Your task to perform on an android device: open chrome and create a bookmark for the current page Image 0: 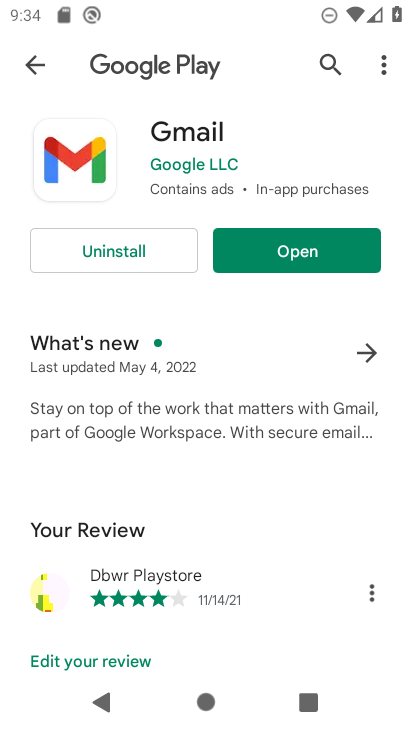
Step 0: press home button
Your task to perform on an android device: open chrome and create a bookmark for the current page Image 1: 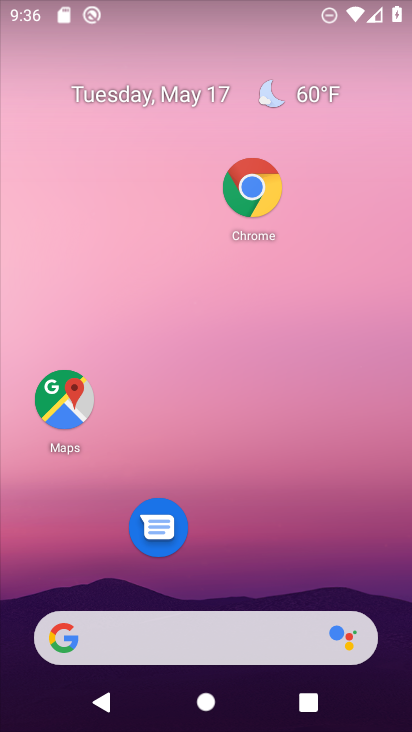
Step 1: click (270, 181)
Your task to perform on an android device: open chrome and create a bookmark for the current page Image 2: 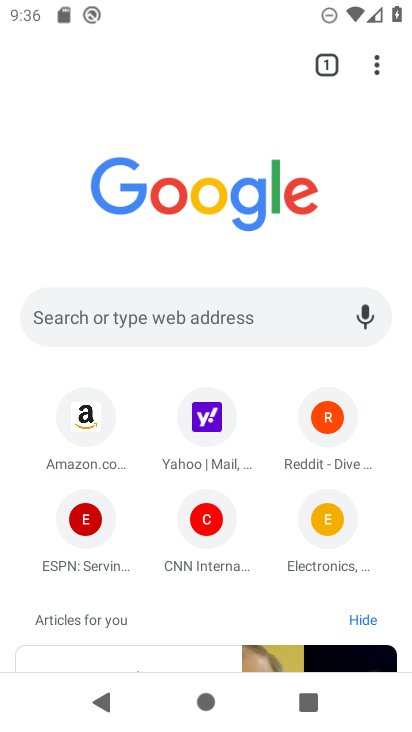
Step 2: click (383, 62)
Your task to perform on an android device: open chrome and create a bookmark for the current page Image 3: 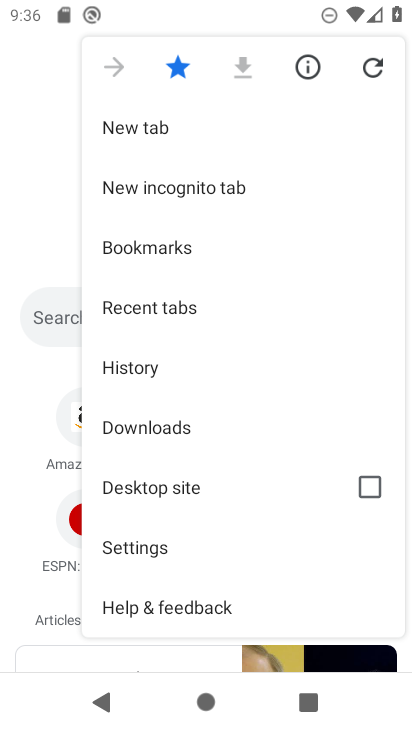
Step 3: click (162, 545)
Your task to perform on an android device: open chrome and create a bookmark for the current page Image 4: 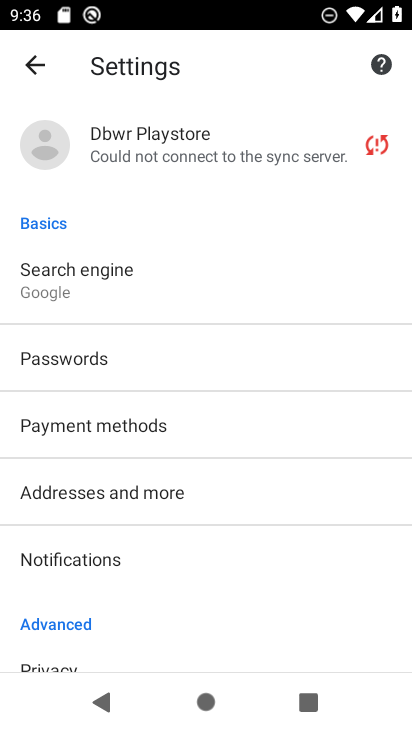
Step 4: click (31, 55)
Your task to perform on an android device: open chrome and create a bookmark for the current page Image 5: 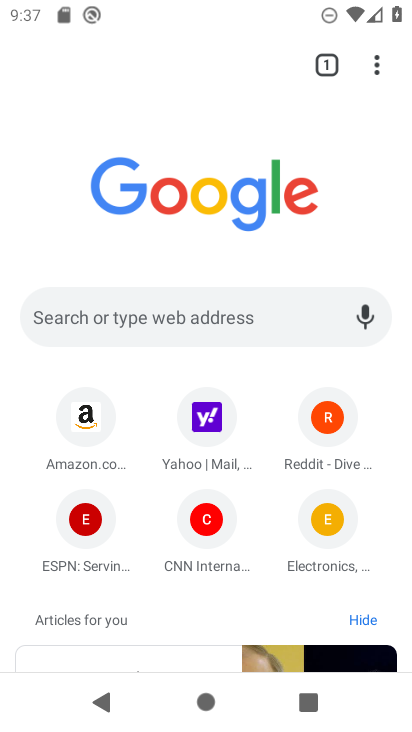
Step 5: click (236, 313)
Your task to perform on an android device: open chrome and create a bookmark for the current page Image 6: 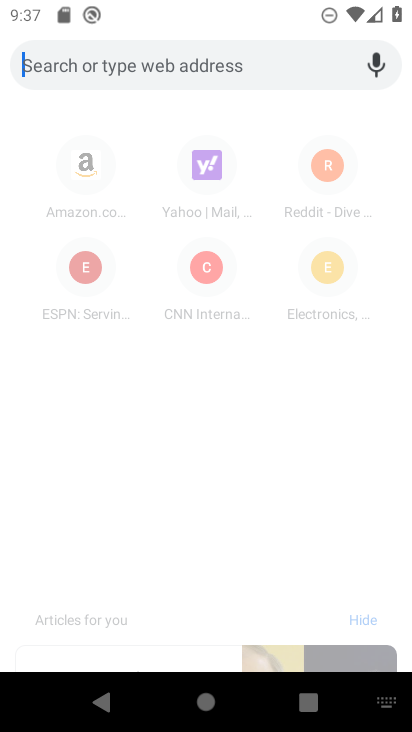
Step 6: type "isi"
Your task to perform on an android device: open chrome and create a bookmark for the current page Image 7: 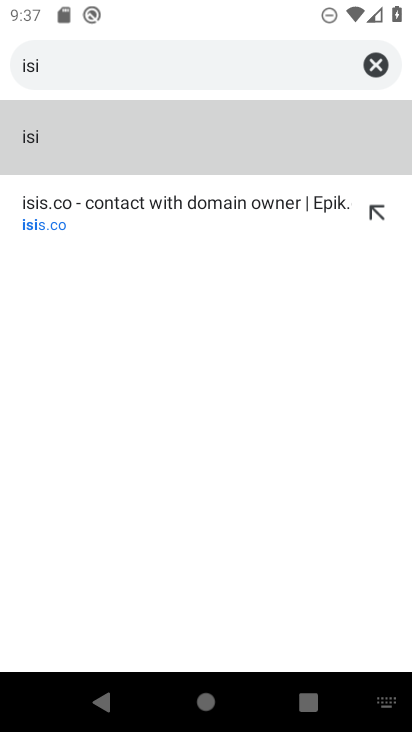
Step 7: click (171, 165)
Your task to perform on an android device: open chrome and create a bookmark for the current page Image 8: 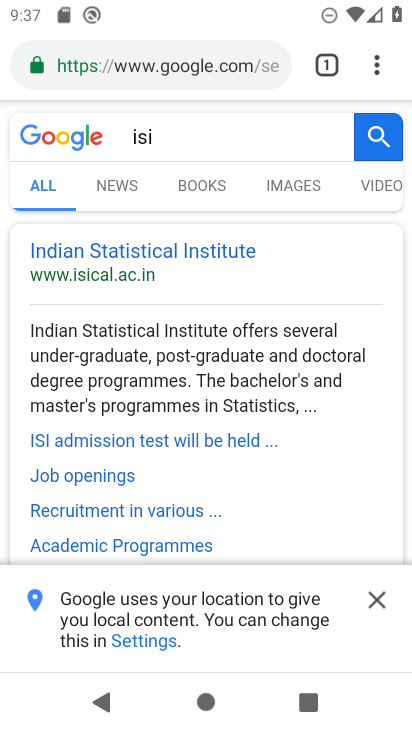
Step 8: click (379, 600)
Your task to perform on an android device: open chrome and create a bookmark for the current page Image 9: 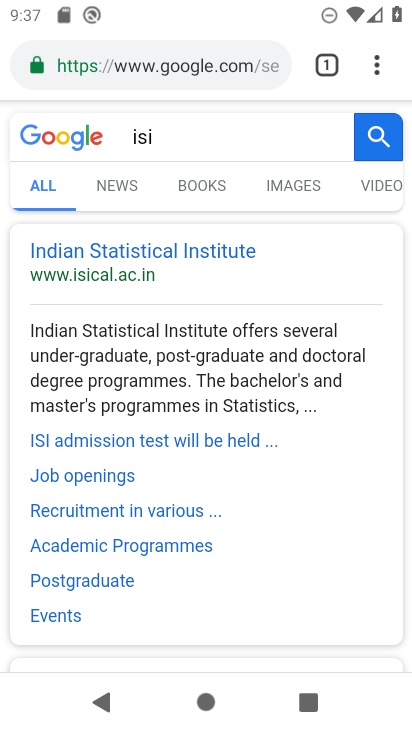
Step 9: drag from (184, 459) to (223, 280)
Your task to perform on an android device: open chrome and create a bookmark for the current page Image 10: 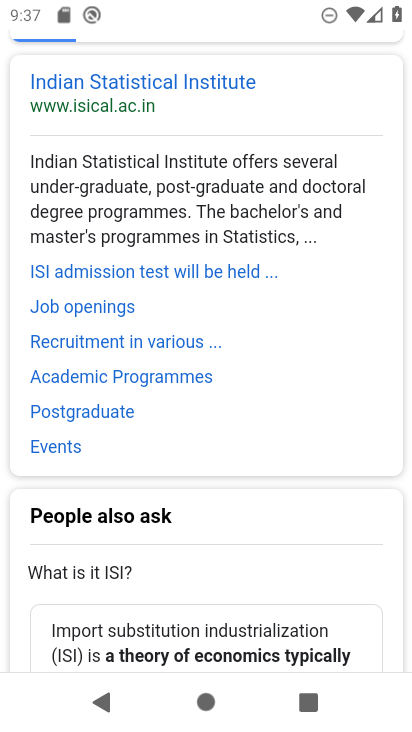
Step 10: drag from (199, 531) to (259, 234)
Your task to perform on an android device: open chrome and create a bookmark for the current page Image 11: 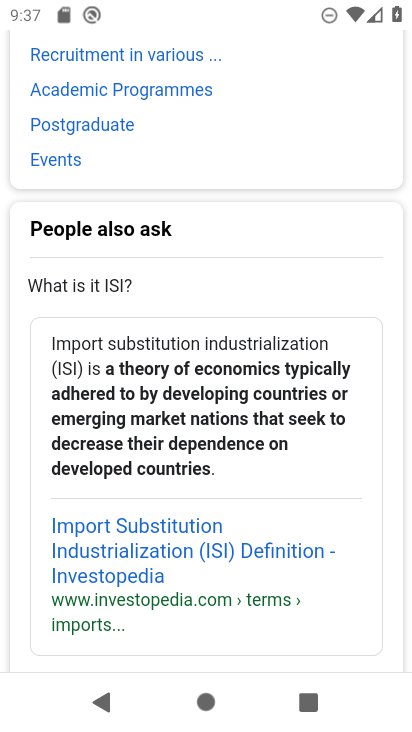
Step 11: drag from (218, 556) to (271, 204)
Your task to perform on an android device: open chrome and create a bookmark for the current page Image 12: 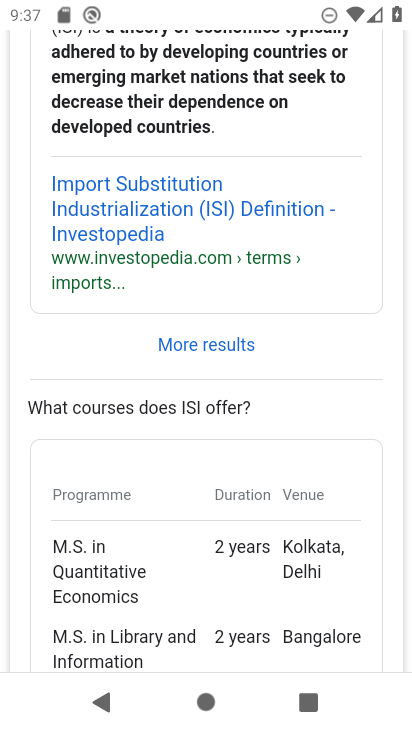
Step 12: drag from (206, 576) to (233, 387)
Your task to perform on an android device: open chrome and create a bookmark for the current page Image 13: 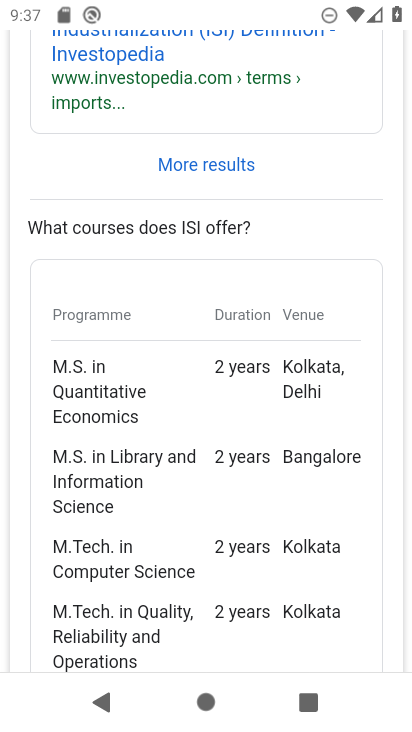
Step 13: drag from (227, 628) to (245, 264)
Your task to perform on an android device: open chrome and create a bookmark for the current page Image 14: 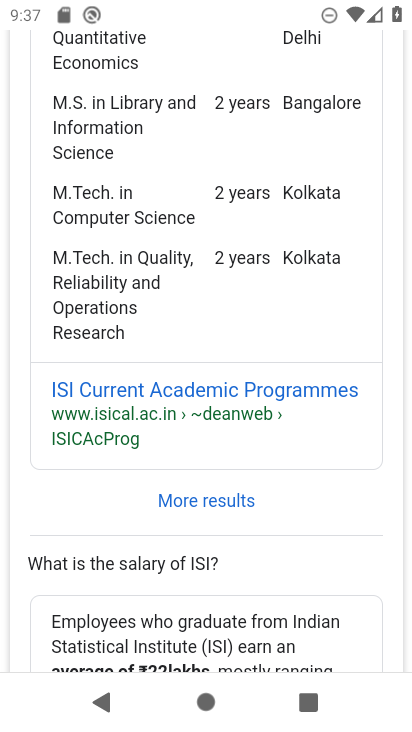
Step 14: drag from (223, 590) to (269, 223)
Your task to perform on an android device: open chrome and create a bookmark for the current page Image 15: 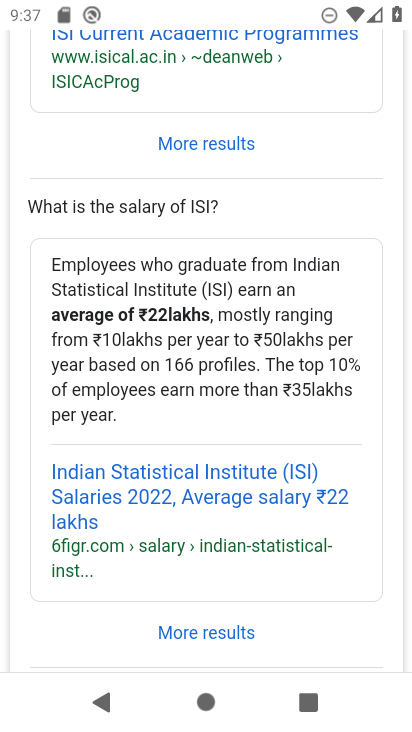
Step 15: drag from (269, 190) to (209, 640)
Your task to perform on an android device: open chrome and create a bookmark for the current page Image 16: 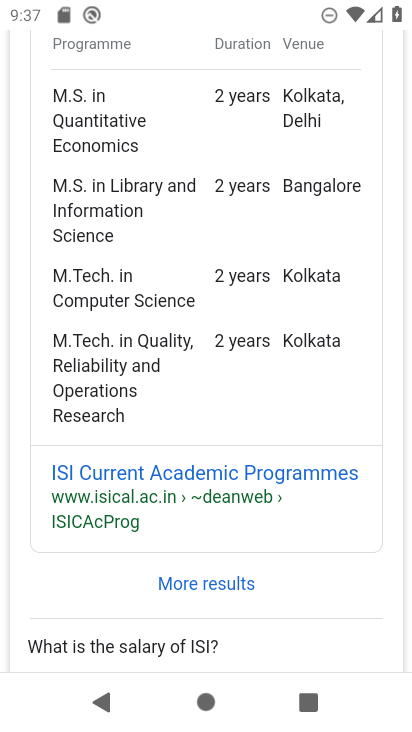
Step 16: drag from (192, 226) to (224, 647)
Your task to perform on an android device: open chrome and create a bookmark for the current page Image 17: 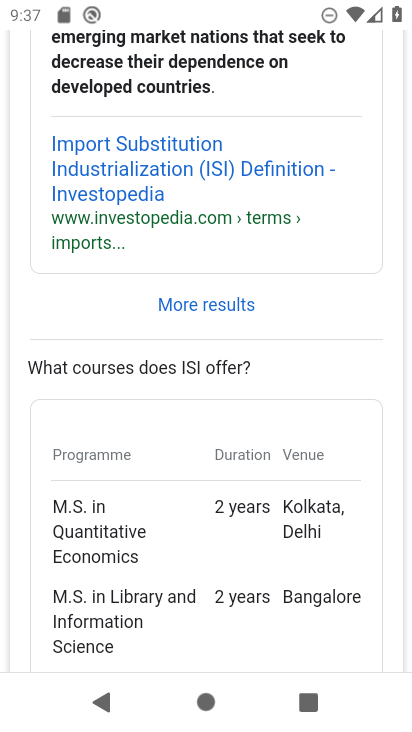
Step 17: drag from (221, 223) to (216, 646)
Your task to perform on an android device: open chrome and create a bookmark for the current page Image 18: 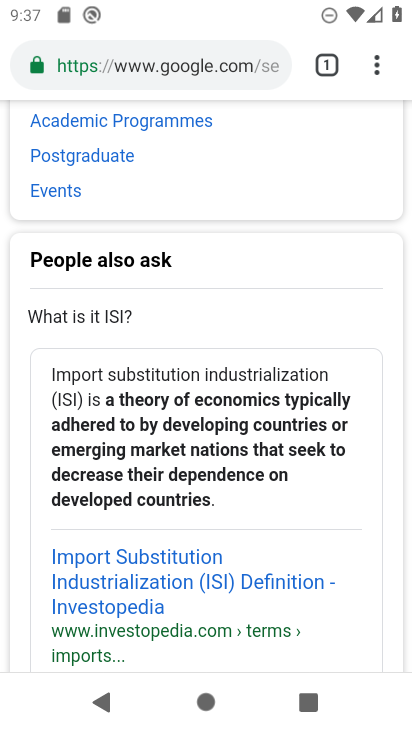
Step 18: drag from (171, 226) to (150, 636)
Your task to perform on an android device: open chrome and create a bookmark for the current page Image 19: 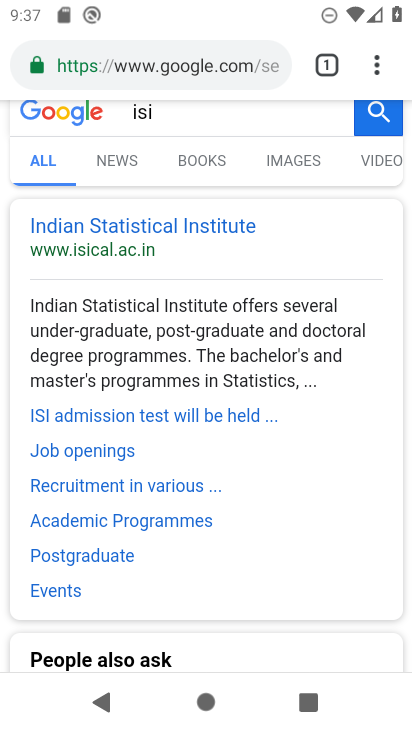
Step 19: drag from (140, 124) to (137, 235)
Your task to perform on an android device: open chrome and create a bookmark for the current page Image 20: 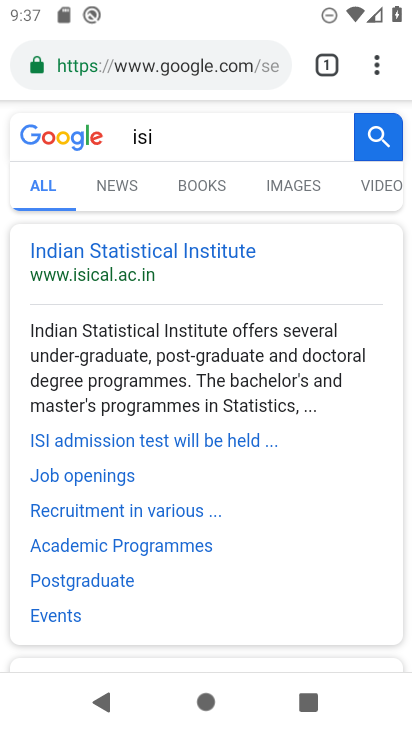
Step 20: click (211, 145)
Your task to perform on an android device: open chrome and create a bookmark for the current page Image 21: 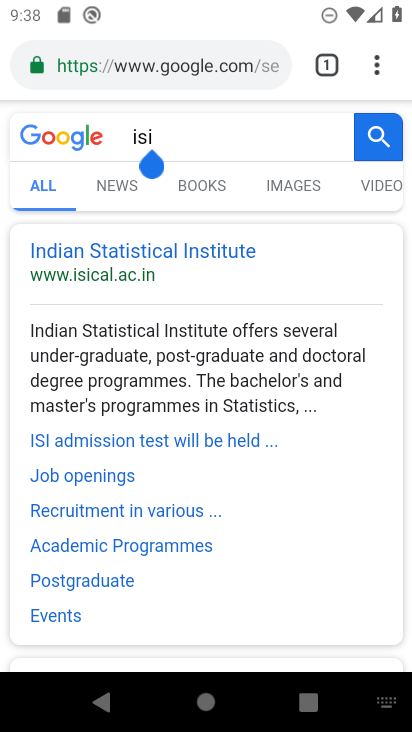
Step 21: type "isi pakistan"
Your task to perform on an android device: open chrome and create a bookmark for the current page Image 22: 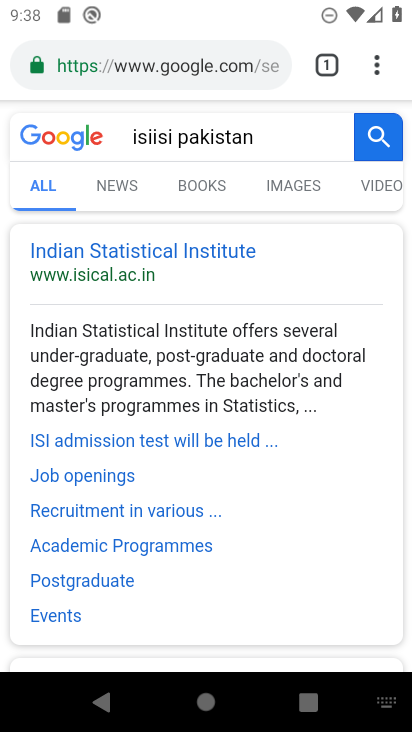
Step 22: click (363, 146)
Your task to perform on an android device: open chrome and create a bookmark for the current page Image 23: 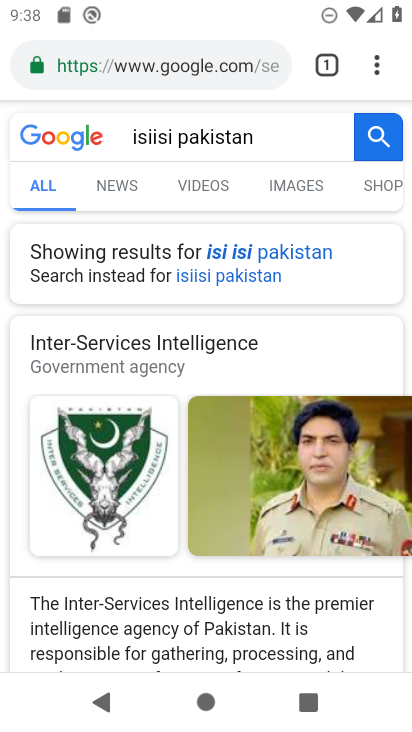
Step 23: drag from (171, 547) to (259, 212)
Your task to perform on an android device: open chrome and create a bookmark for the current page Image 24: 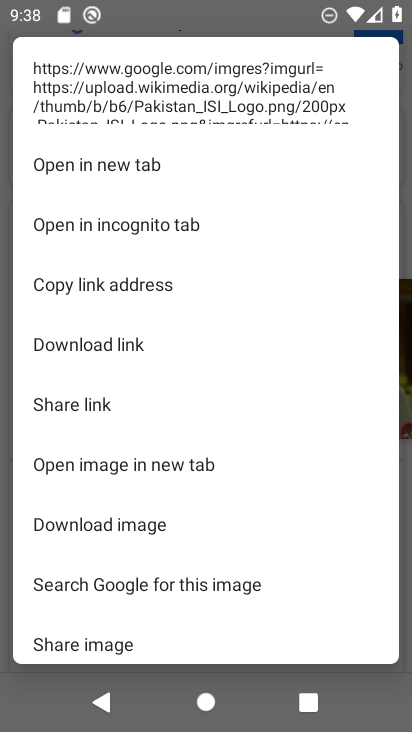
Step 24: click (25, 711)
Your task to perform on an android device: open chrome and create a bookmark for the current page Image 25: 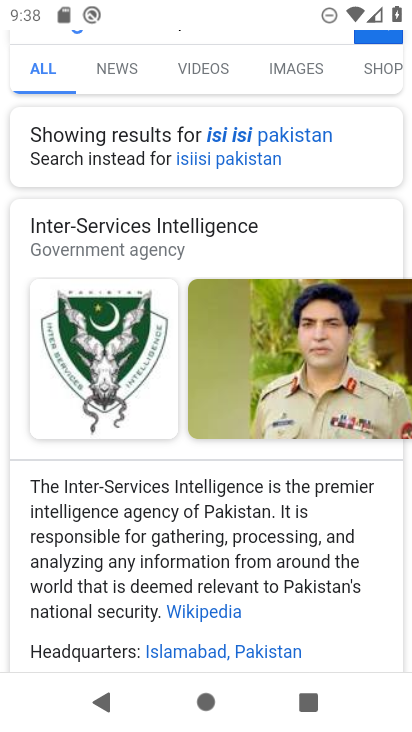
Step 25: drag from (193, 505) to (227, 217)
Your task to perform on an android device: open chrome and create a bookmark for the current page Image 26: 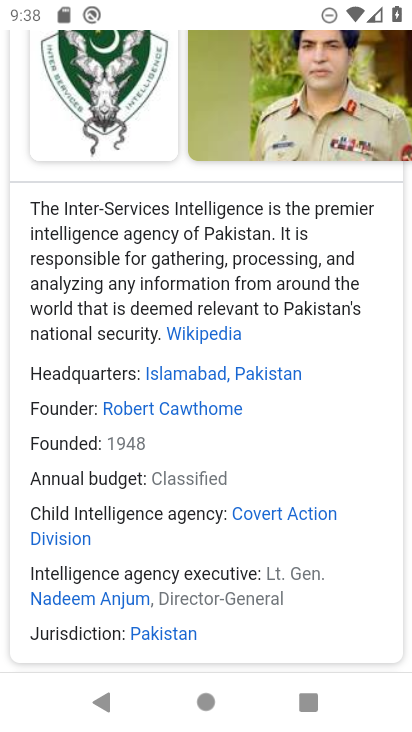
Step 26: drag from (243, 598) to (259, 324)
Your task to perform on an android device: open chrome and create a bookmark for the current page Image 27: 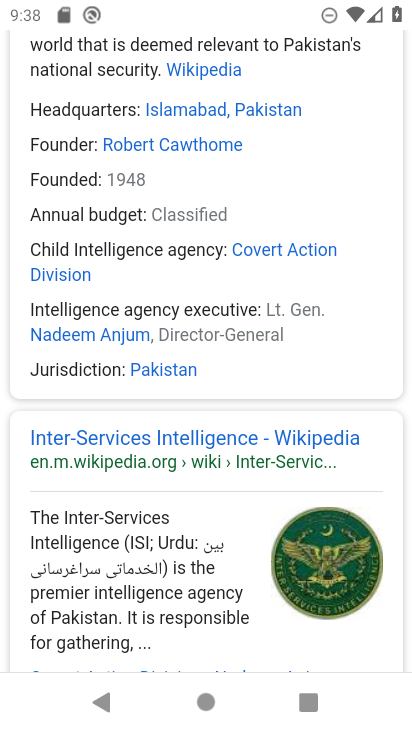
Step 27: drag from (179, 565) to (215, 228)
Your task to perform on an android device: open chrome and create a bookmark for the current page Image 28: 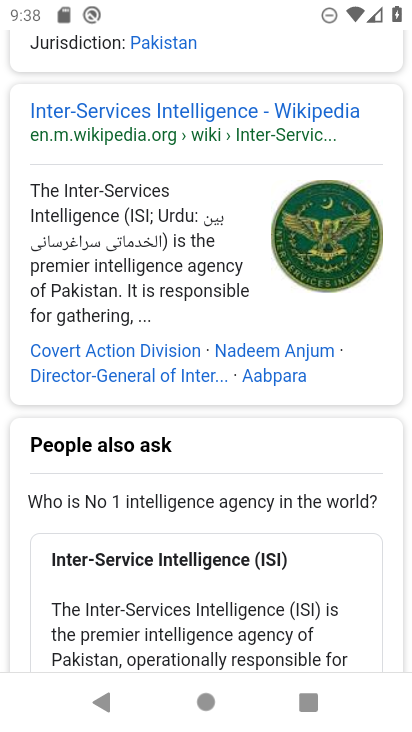
Step 28: drag from (156, 563) to (202, 133)
Your task to perform on an android device: open chrome and create a bookmark for the current page Image 29: 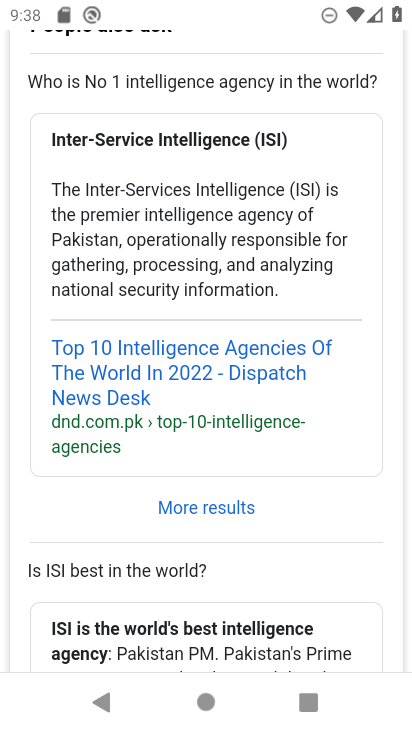
Step 29: drag from (128, 569) to (177, 161)
Your task to perform on an android device: open chrome and create a bookmark for the current page Image 30: 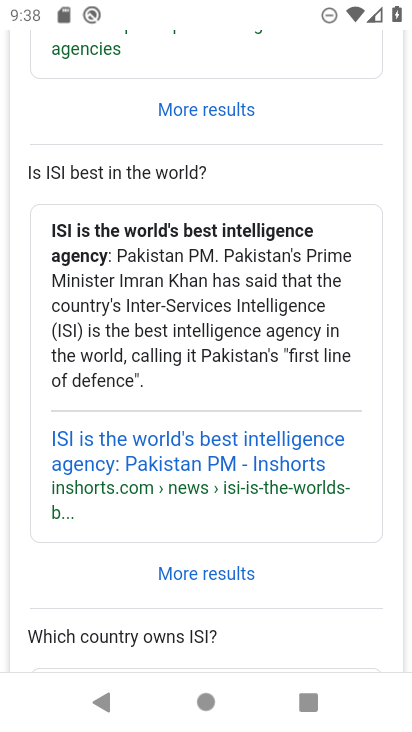
Step 30: drag from (125, 580) to (174, 231)
Your task to perform on an android device: open chrome and create a bookmark for the current page Image 31: 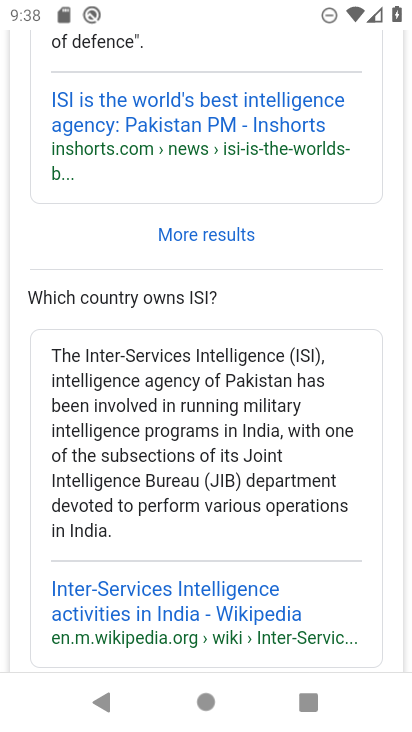
Step 31: drag from (178, 616) to (217, 267)
Your task to perform on an android device: open chrome and create a bookmark for the current page Image 32: 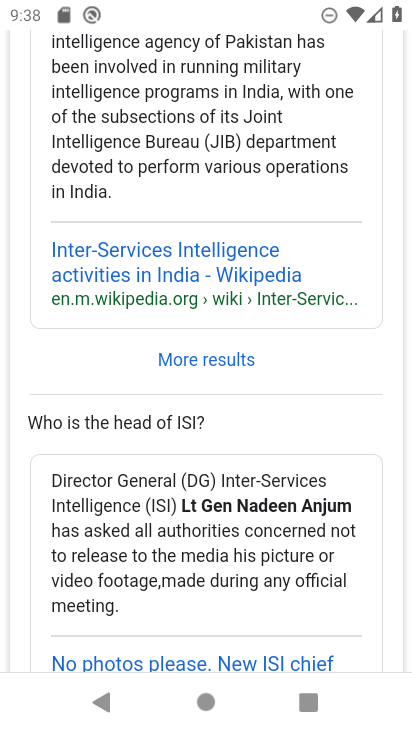
Step 32: drag from (186, 661) to (226, 243)
Your task to perform on an android device: open chrome and create a bookmark for the current page Image 33: 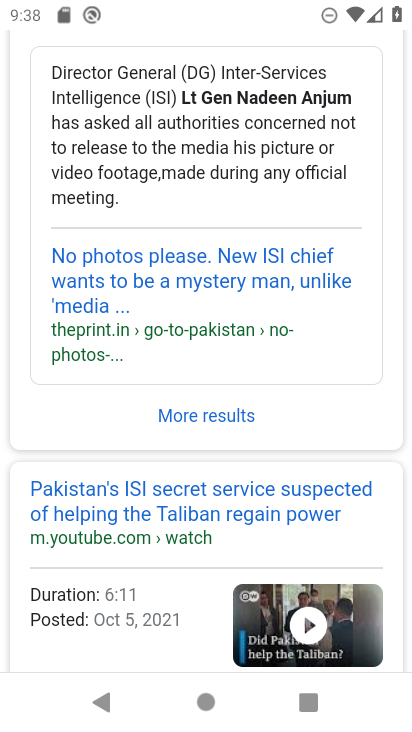
Step 33: click (201, 478)
Your task to perform on an android device: open chrome and create a bookmark for the current page Image 34: 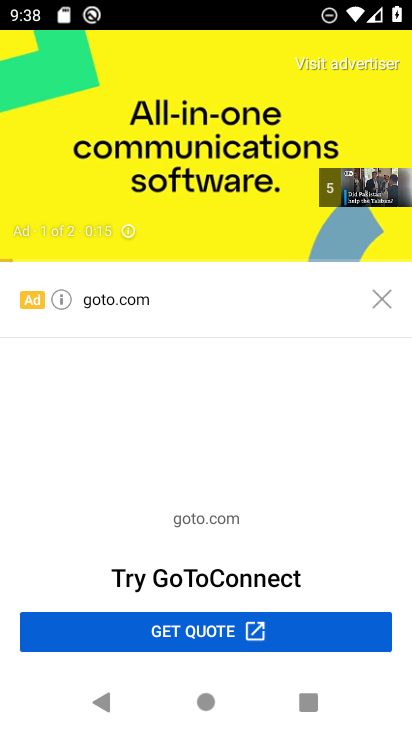
Step 34: press back button
Your task to perform on an android device: open chrome and create a bookmark for the current page Image 35: 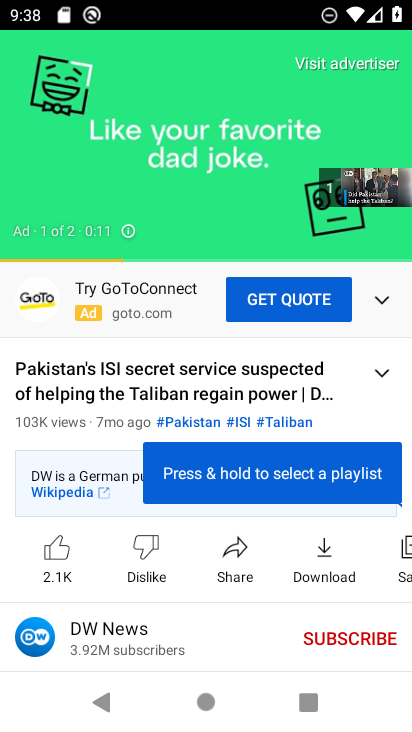
Step 35: press back button
Your task to perform on an android device: open chrome and create a bookmark for the current page Image 36: 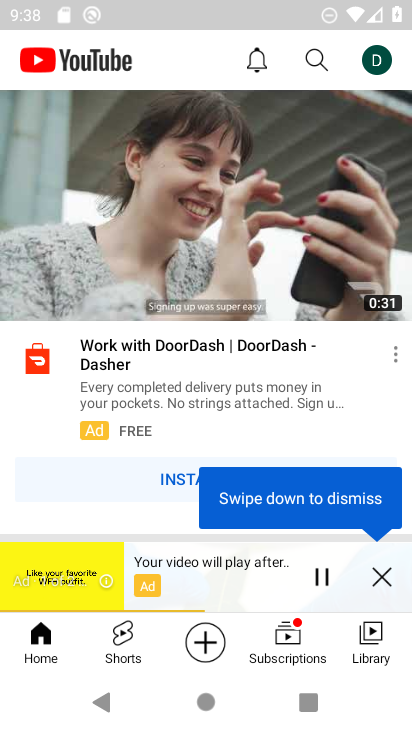
Step 36: click (379, 573)
Your task to perform on an android device: open chrome and create a bookmark for the current page Image 37: 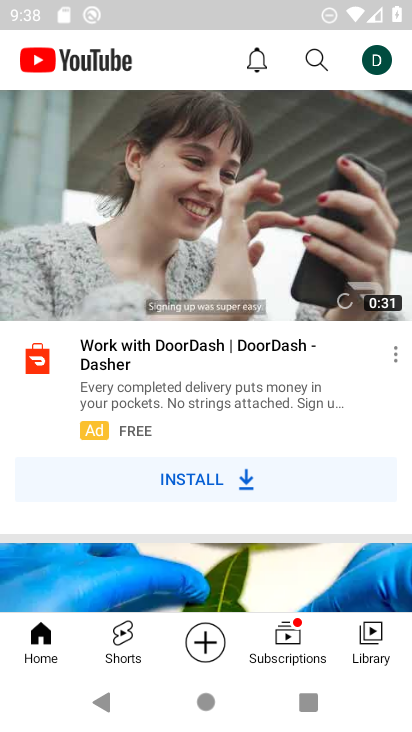
Step 37: press back button
Your task to perform on an android device: open chrome and create a bookmark for the current page Image 38: 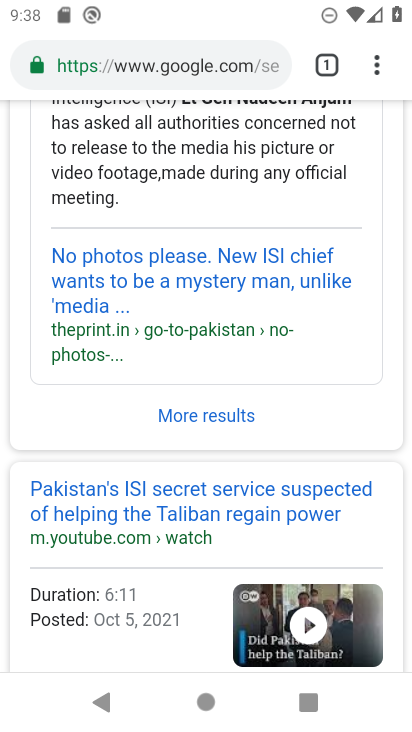
Step 38: click (121, 285)
Your task to perform on an android device: open chrome and create a bookmark for the current page Image 39: 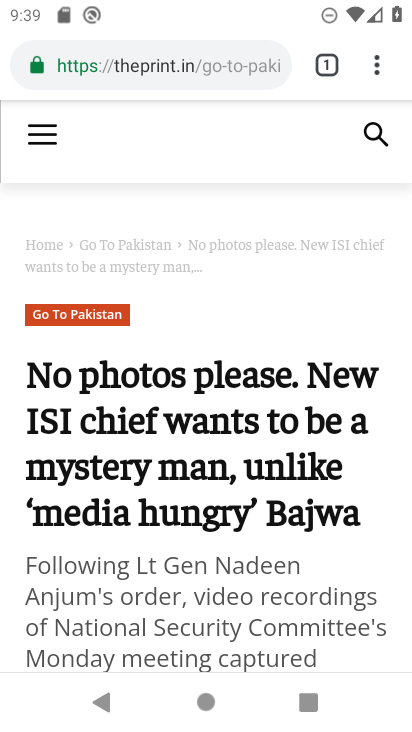
Step 39: click (369, 72)
Your task to perform on an android device: open chrome and create a bookmark for the current page Image 40: 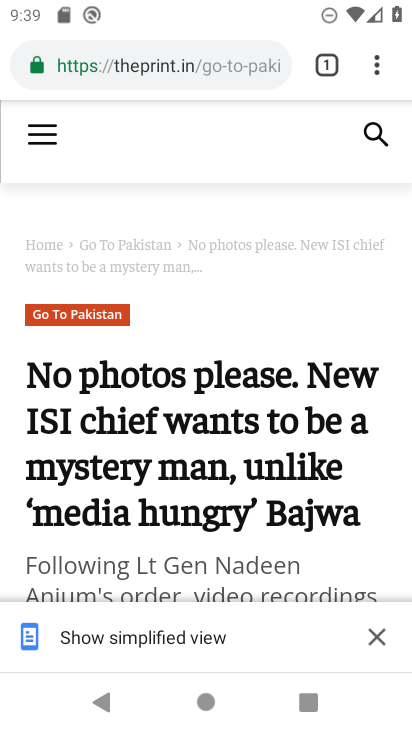
Step 40: click (379, 73)
Your task to perform on an android device: open chrome and create a bookmark for the current page Image 41: 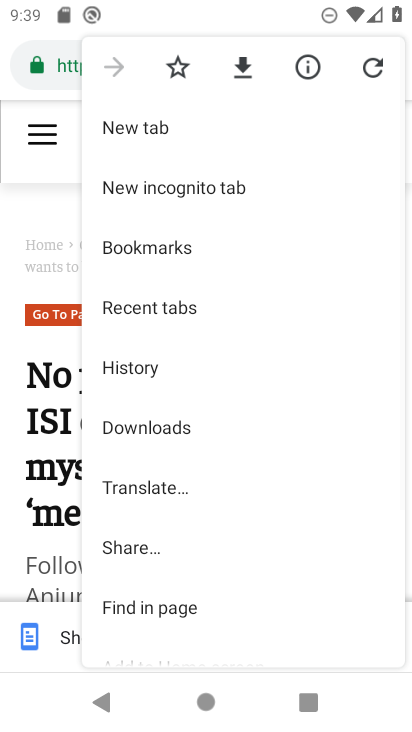
Step 41: click (167, 66)
Your task to perform on an android device: open chrome and create a bookmark for the current page Image 42: 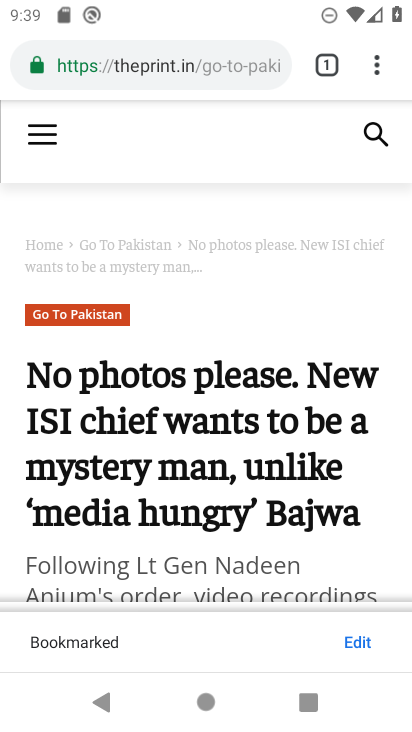
Step 42: task complete